Your task to perform on an android device: Open Wikipedia Image 0: 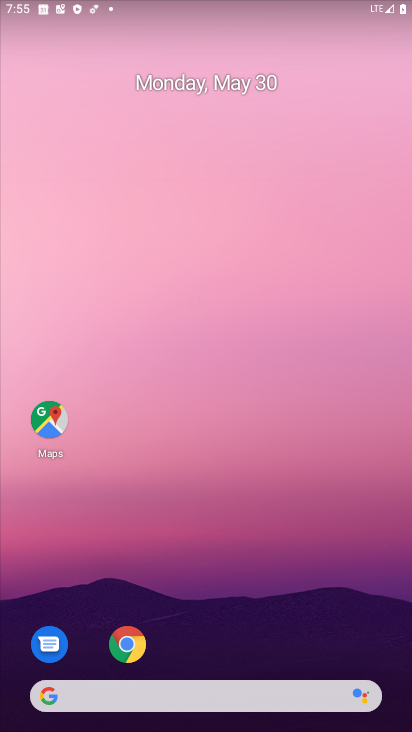
Step 0: drag from (220, 568) to (155, 32)
Your task to perform on an android device: Open Wikipedia Image 1: 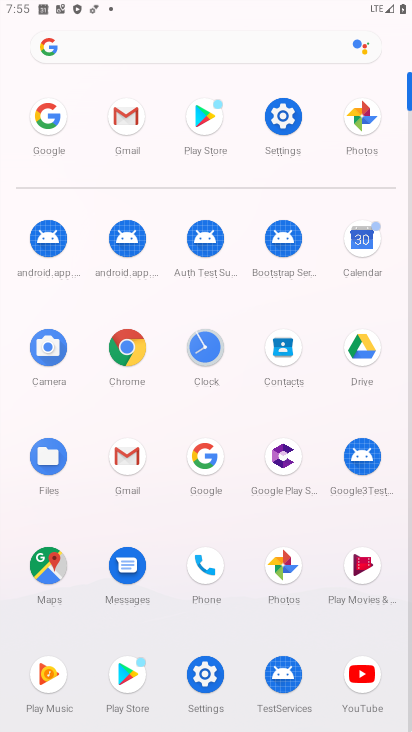
Step 1: click (127, 346)
Your task to perform on an android device: Open Wikipedia Image 2: 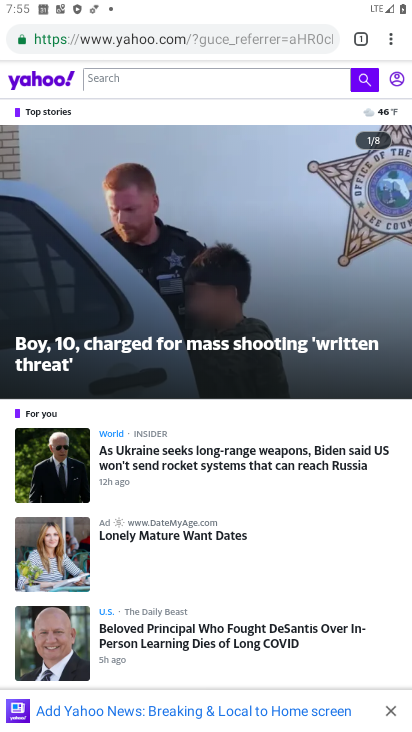
Step 2: click (298, 34)
Your task to perform on an android device: Open Wikipedia Image 3: 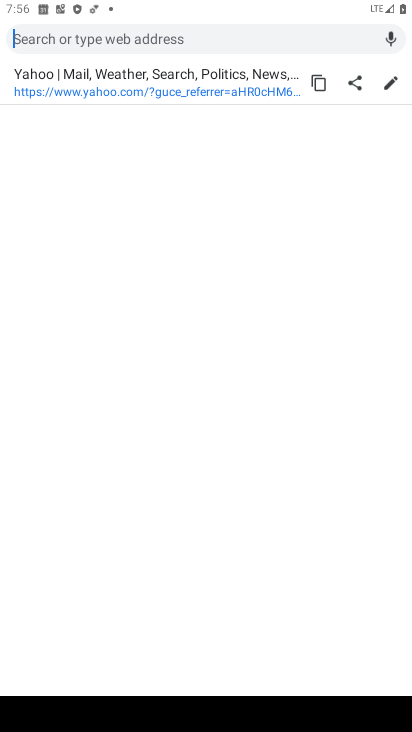
Step 3: type "Wikipedia"
Your task to perform on an android device: Open Wikipedia Image 4: 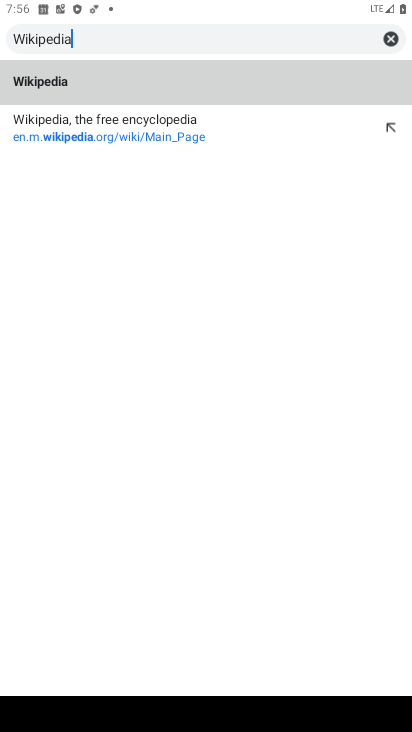
Step 4: click (34, 84)
Your task to perform on an android device: Open Wikipedia Image 5: 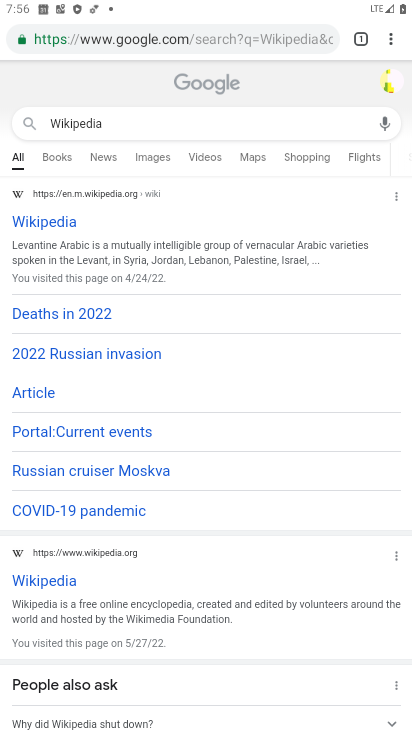
Step 5: click (50, 222)
Your task to perform on an android device: Open Wikipedia Image 6: 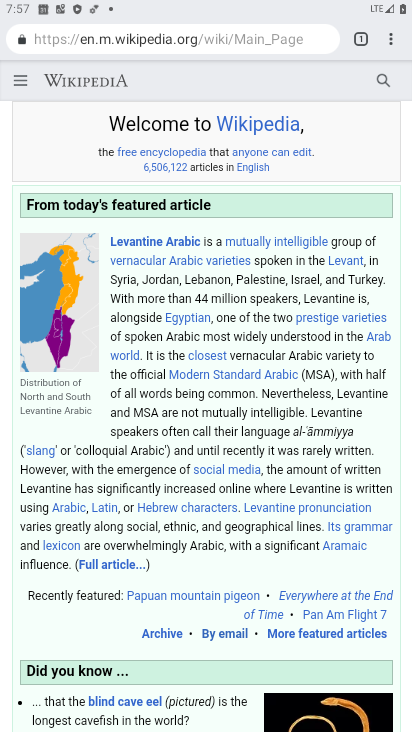
Step 6: task complete